Your task to perform on an android device: What's the weather? Image 0: 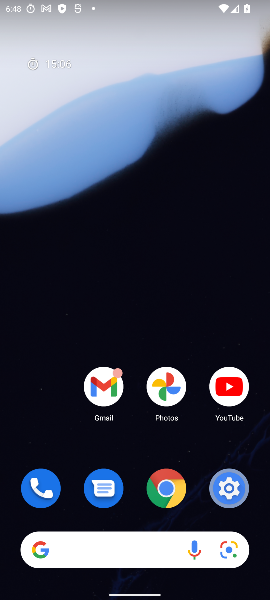
Step 0: drag from (81, 388) to (129, 152)
Your task to perform on an android device: What's the weather? Image 1: 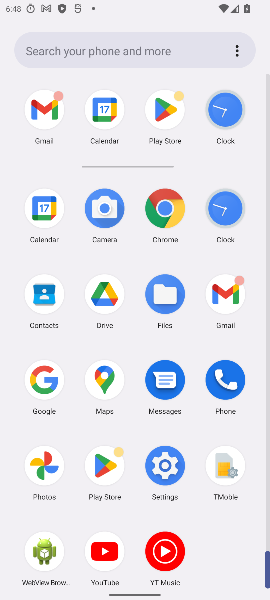
Step 1: click (46, 380)
Your task to perform on an android device: What's the weather? Image 2: 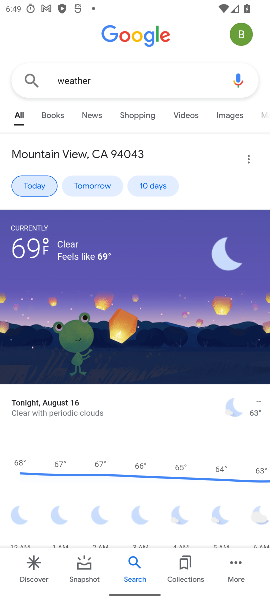
Step 2: task complete